Your task to perform on an android device: turn on airplane mode Image 0: 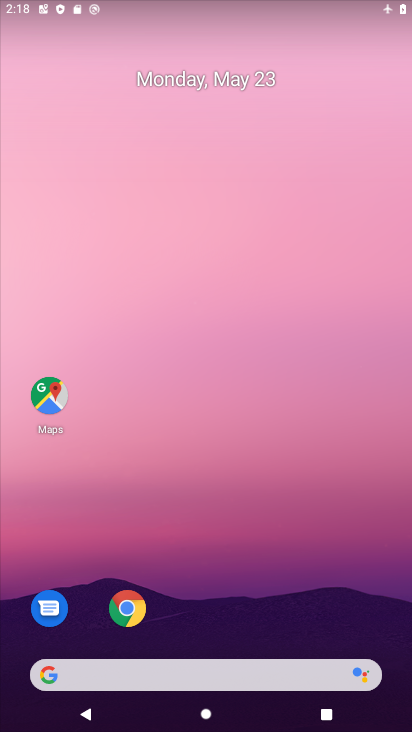
Step 0: drag from (201, 645) to (233, 13)
Your task to perform on an android device: turn on airplane mode Image 1: 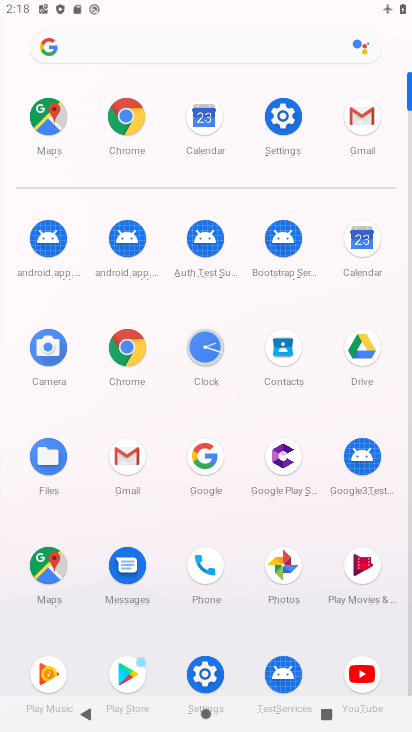
Step 1: click (281, 127)
Your task to perform on an android device: turn on airplane mode Image 2: 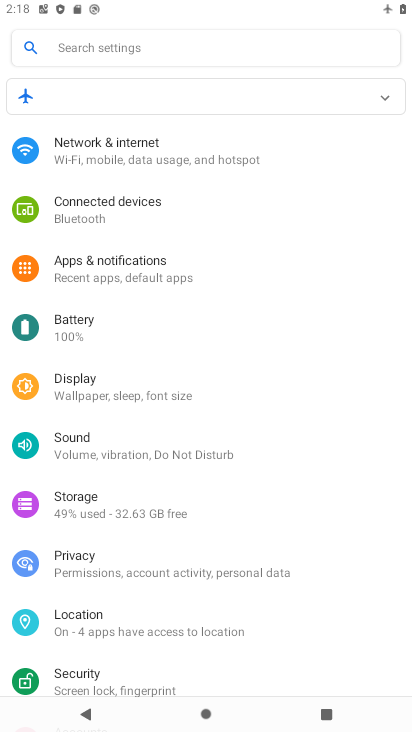
Step 2: click (119, 160)
Your task to perform on an android device: turn on airplane mode Image 3: 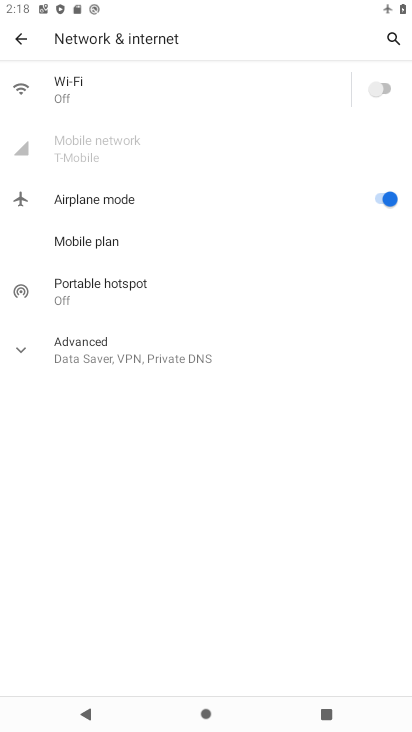
Step 3: task complete